Your task to perform on an android device: open chrome and create a bookmark for the current page Image 0: 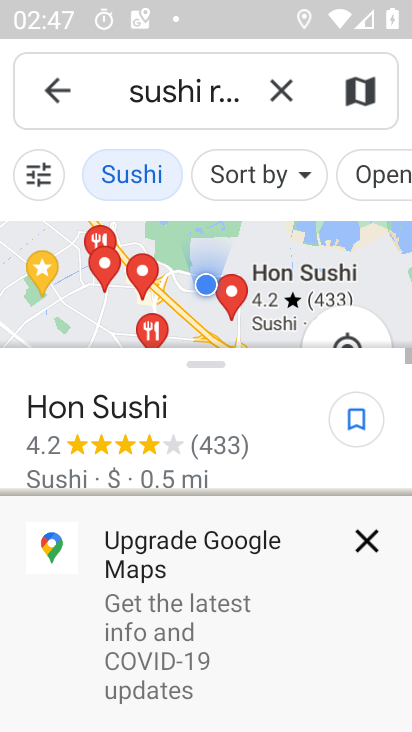
Step 0: press home button
Your task to perform on an android device: open chrome and create a bookmark for the current page Image 1: 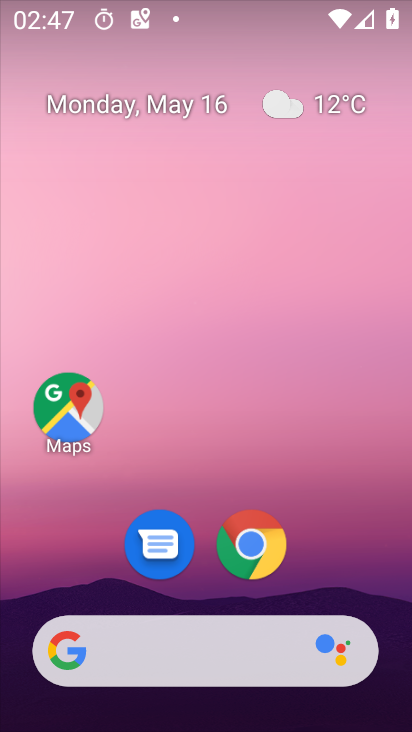
Step 1: click (252, 540)
Your task to perform on an android device: open chrome and create a bookmark for the current page Image 2: 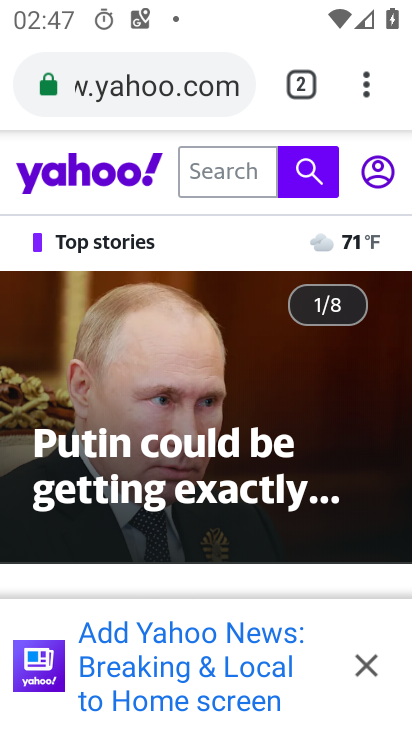
Step 2: click (366, 90)
Your task to perform on an android device: open chrome and create a bookmark for the current page Image 3: 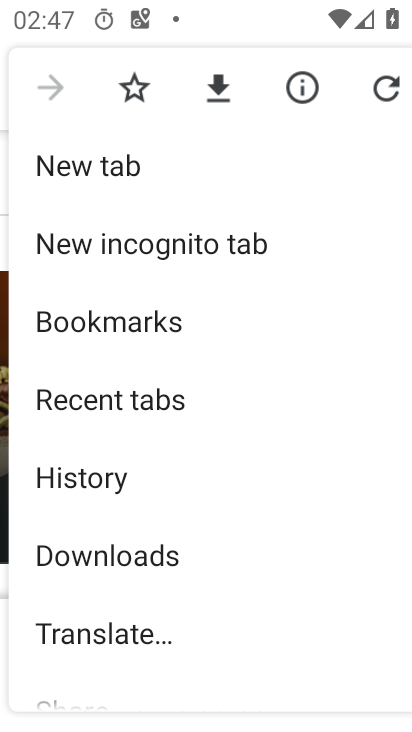
Step 3: click (133, 90)
Your task to perform on an android device: open chrome and create a bookmark for the current page Image 4: 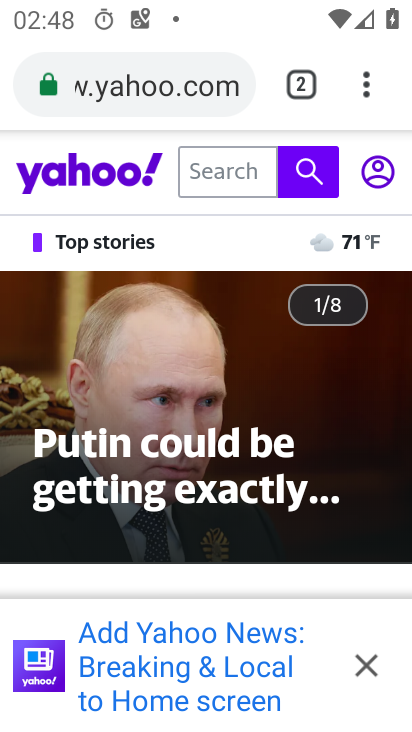
Step 4: task complete